Your task to perform on an android device: turn smart compose on in the gmail app Image 0: 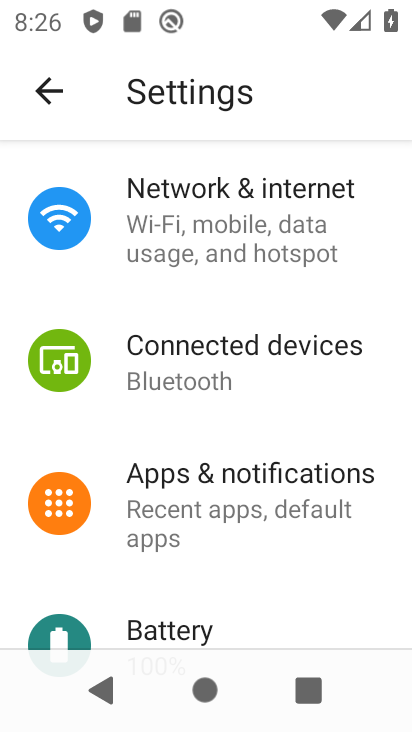
Step 0: press home button
Your task to perform on an android device: turn smart compose on in the gmail app Image 1: 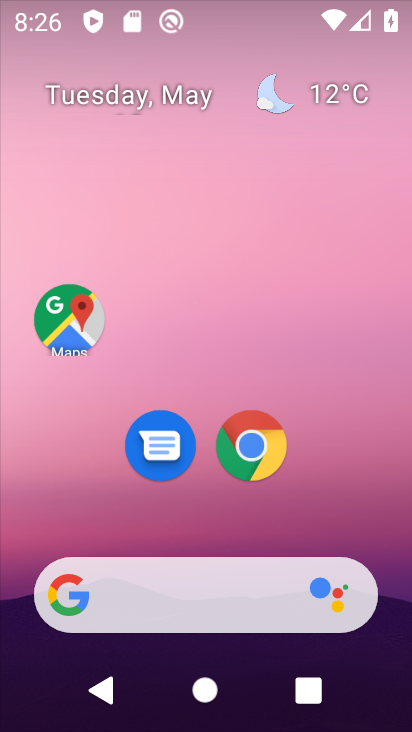
Step 1: drag from (343, 497) to (319, 236)
Your task to perform on an android device: turn smart compose on in the gmail app Image 2: 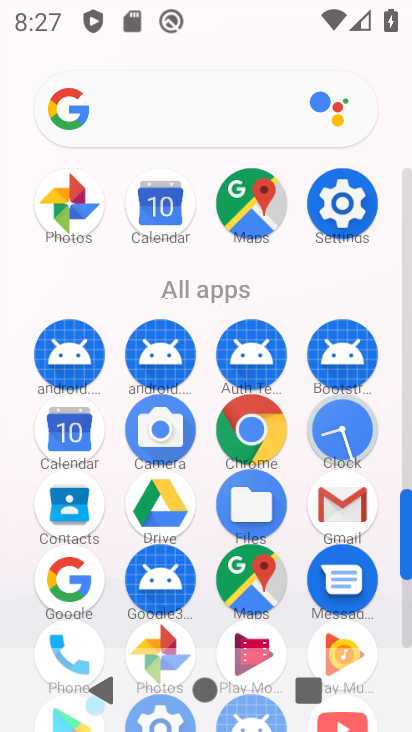
Step 2: click (346, 524)
Your task to perform on an android device: turn smart compose on in the gmail app Image 3: 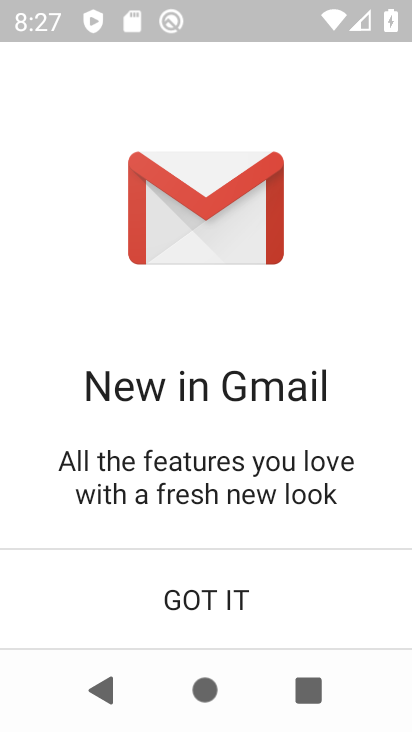
Step 3: click (219, 608)
Your task to perform on an android device: turn smart compose on in the gmail app Image 4: 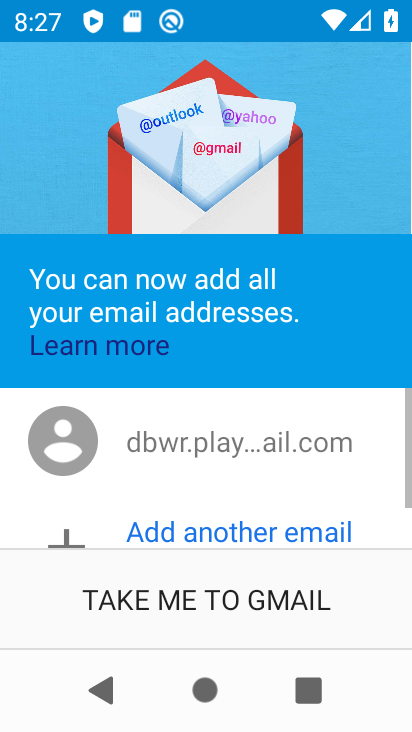
Step 4: click (219, 608)
Your task to perform on an android device: turn smart compose on in the gmail app Image 5: 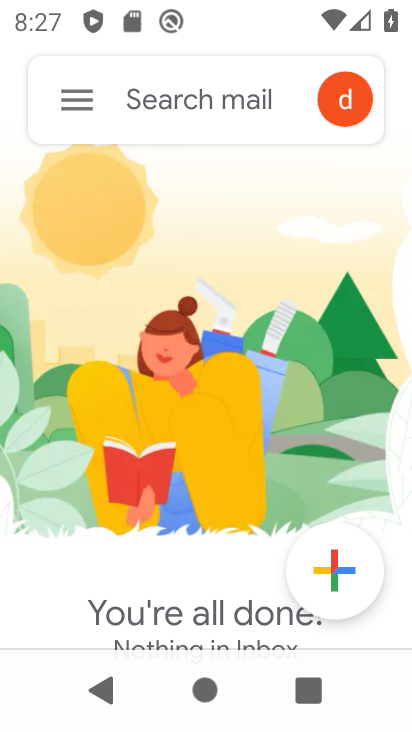
Step 5: click (72, 99)
Your task to perform on an android device: turn smart compose on in the gmail app Image 6: 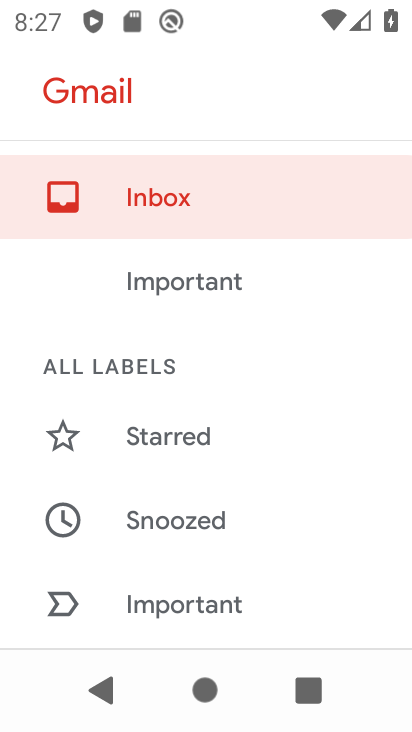
Step 6: drag from (197, 568) to (271, 241)
Your task to perform on an android device: turn smart compose on in the gmail app Image 7: 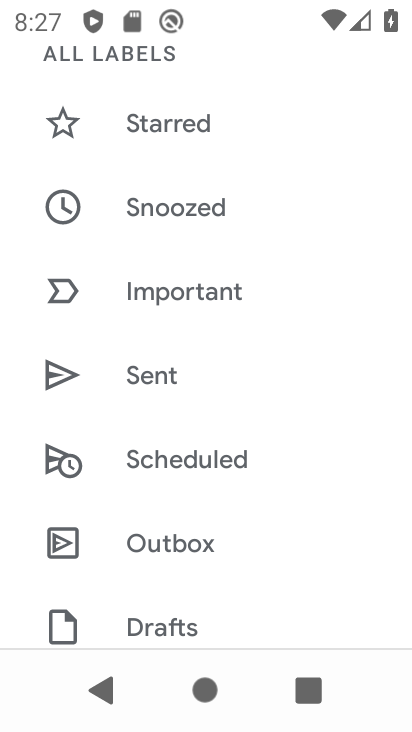
Step 7: drag from (223, 550) to (239, 191)
Your task to perform on an android device: turn smart compose on in the gmail app Image 8: 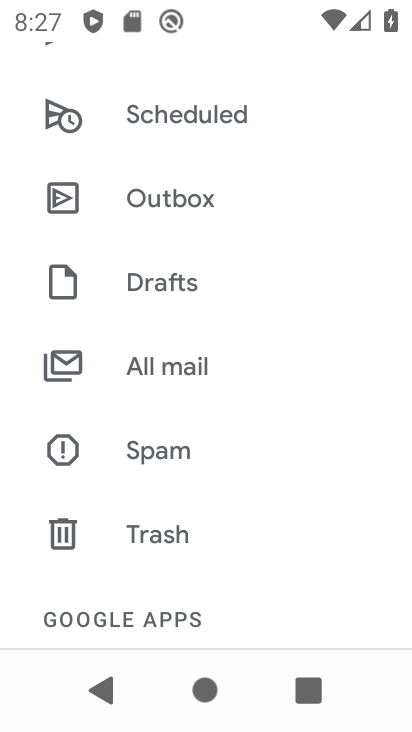
Step 8: drag from (226, 550) to (221, 268)
Your task to perform on an android device: turn smart compose on in the gmail app Image 9: 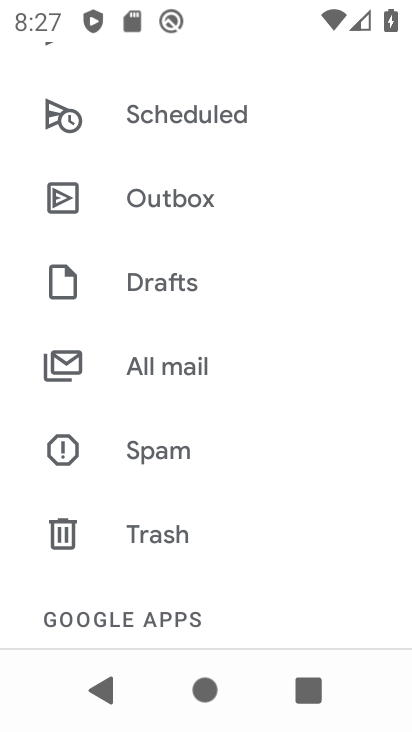
Step 9: drag from (211, 542) to (201, 340)
Your task to perform on an android device: turn smart compose on in the gmail app Image 10: 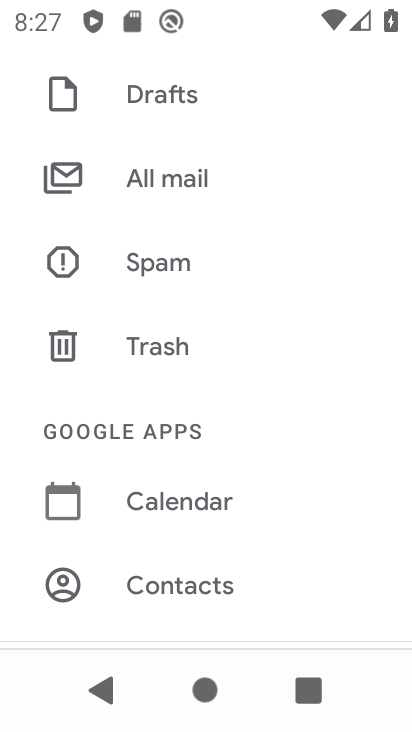
Step 10: drag from (232, 567) to (246, 291)
Your task to perform on an android device: turn smart compose on in the gmail app Image 11: 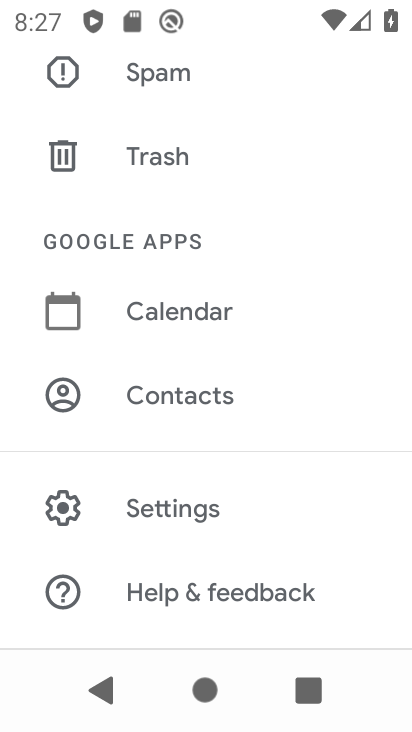
Step 11: click (174, 510)
Your task to perform on an android device: turn smart compose on in the gmail app Image 12: 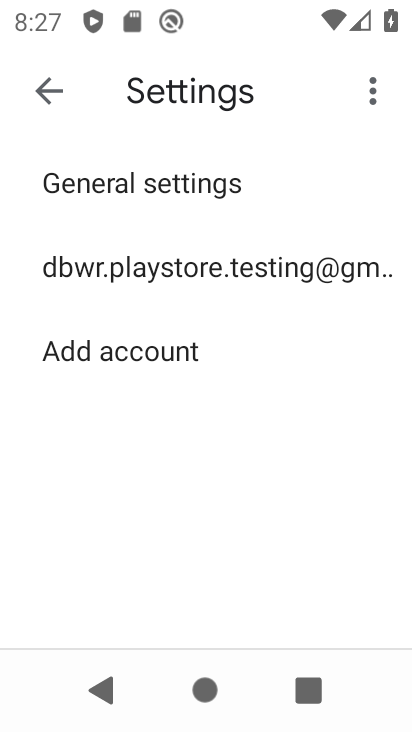
Step 12: click (201, 276)
Your task to perform on an android device: turn smart compose on in the gmail app Image 13: 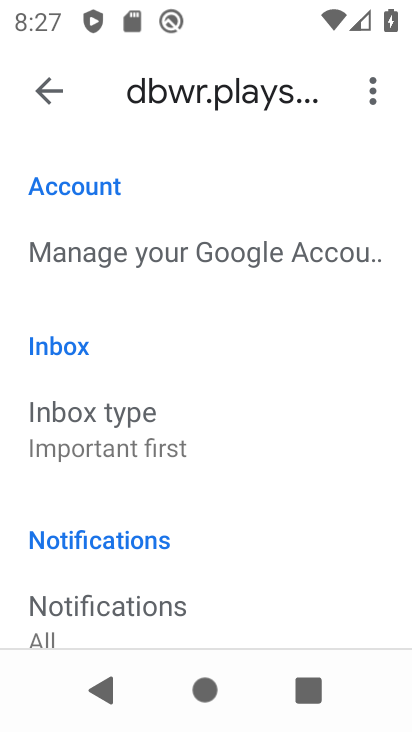
Step 13: task complete